Your task to perform on an android device: delete location history Image 0: 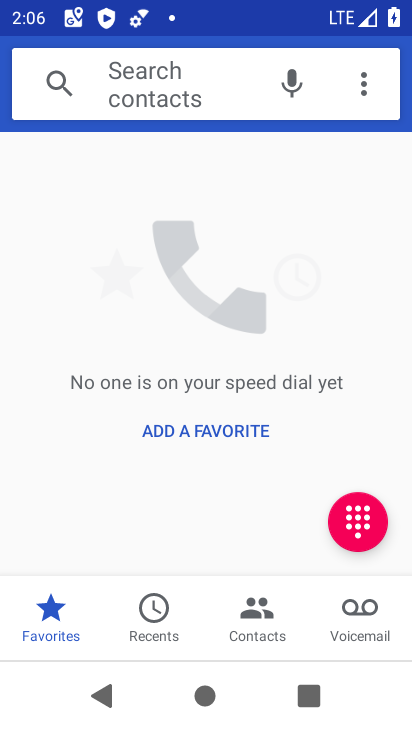
Step 0: press home button
Your task to perform on an android device: delete location history Image 1: 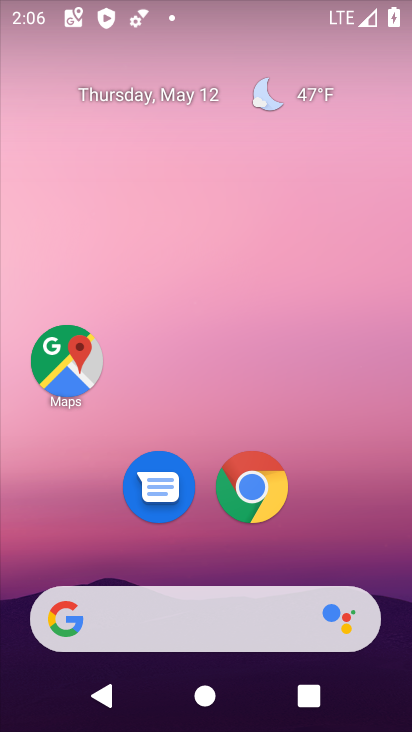
Step 1: click (60, 359)
Your task to perform on an android device: delete location history Image 2: 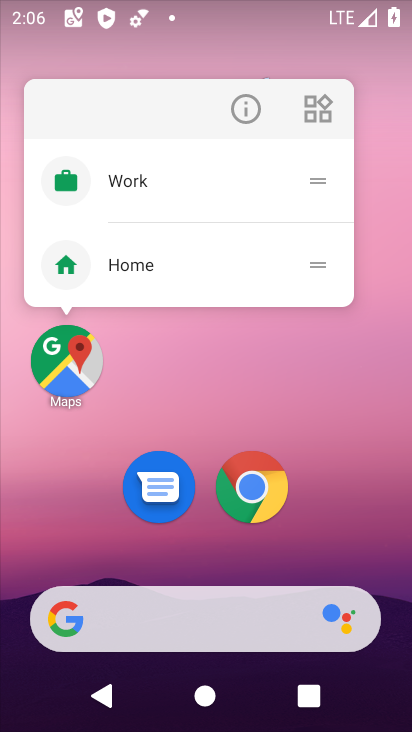
Step 2: drag from (345, 508) to (247, 64)
Your task to perform on an android device: delete location history Image 3: 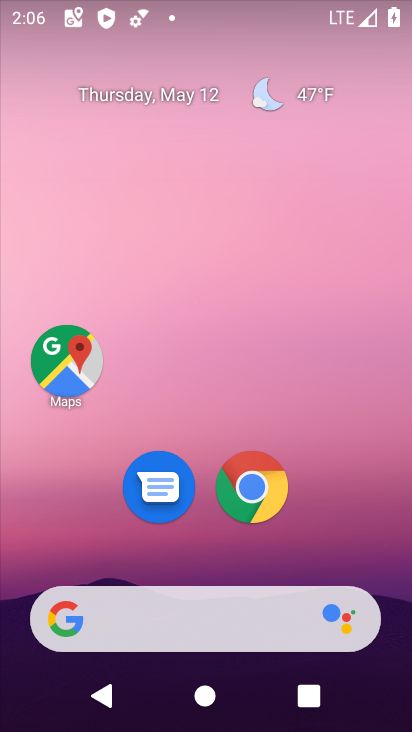
Step 3: click (84, 370)
Your task to perform on an android device: delete location history Image 4: 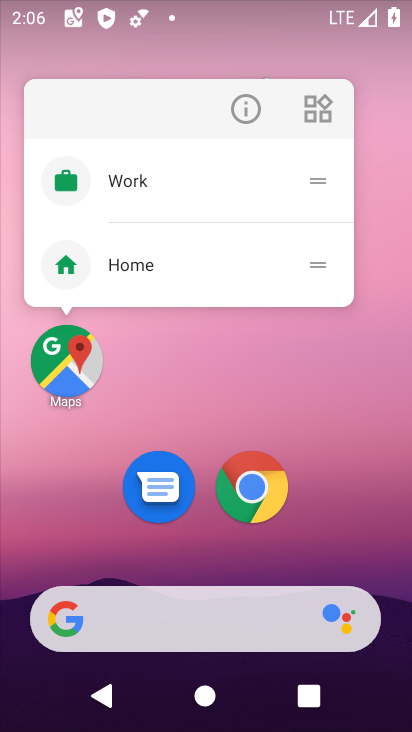
Step 4: click (67, 370)
Your task to perform on an android device: delete location history Image 5: 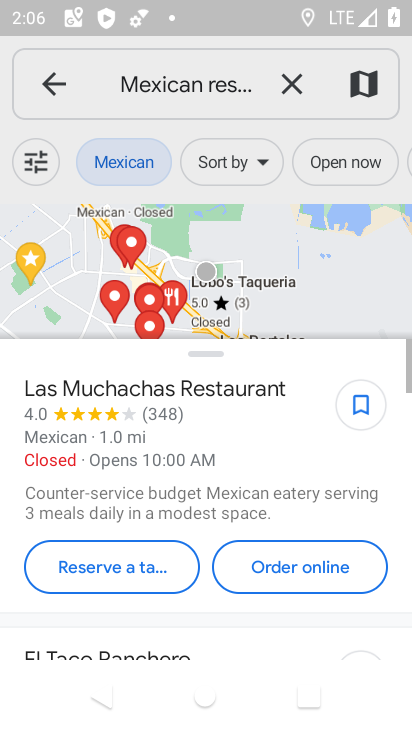
Step 5: click (59, 96)
Your task to perform on an android device: delete location history Image 6: 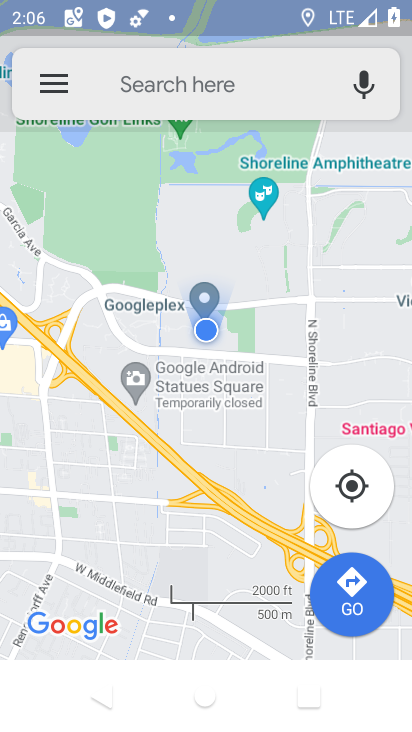
Step 6: click (45, 92)
Your task to perform on an android device: delete location history Image 7: 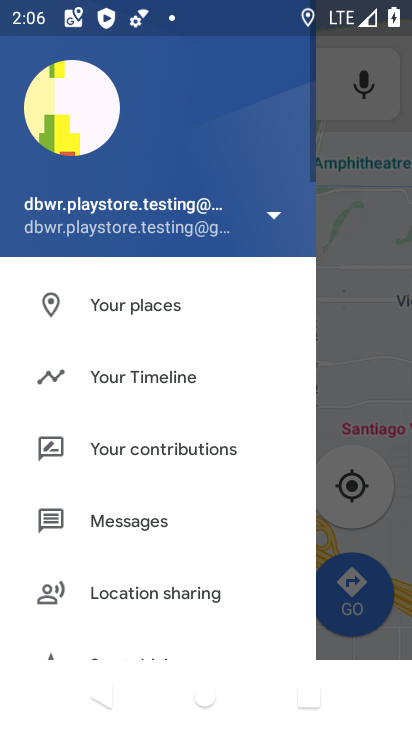
Step 7: drag from (179, 514) to (171, 0)
Your task to perform on an android device: delete location history Image 8: 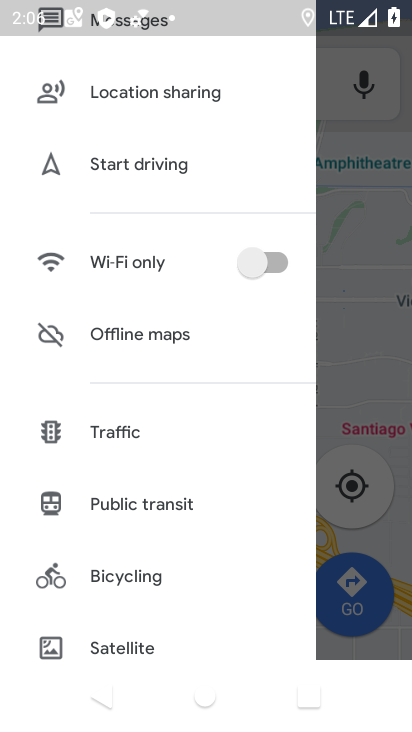
Step 8: drag from (199, 584) to (216, 155)
Your task to perform on an android device: delete location history Image 9: 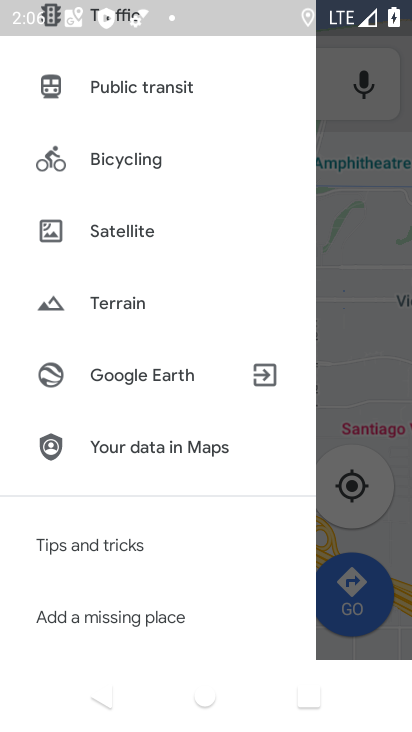
Step 9: drag from (171, 610) to (176, 168)
Your task to perform on an android device: delete location history Image 10: 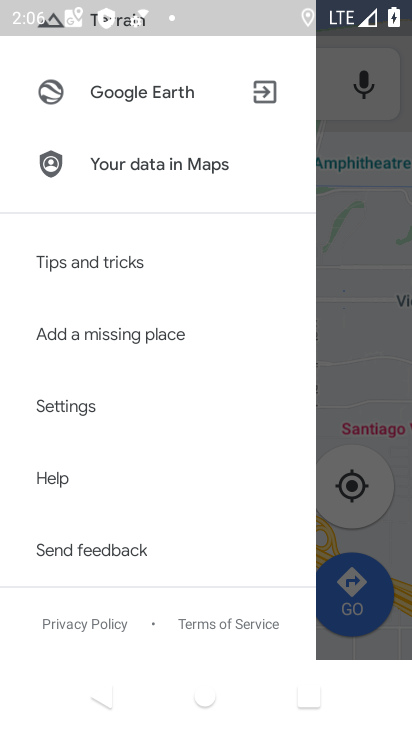
Step 10: click (60, 408)
Your task to perform on an android device: delete location history Image 11: 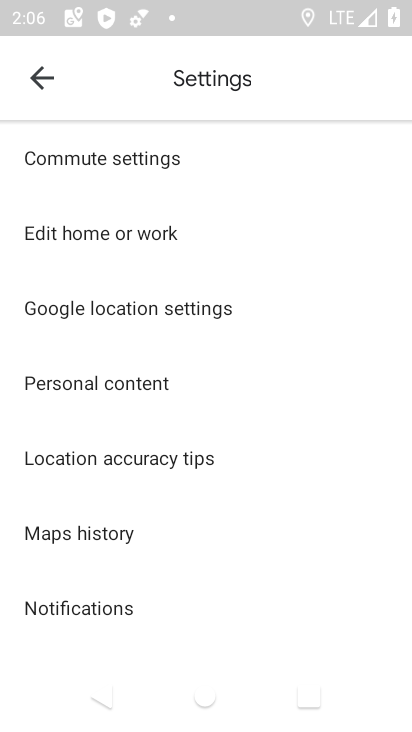
Step 11: click (91, 534)
Your task to perform on an android device: delete location history Image 12: 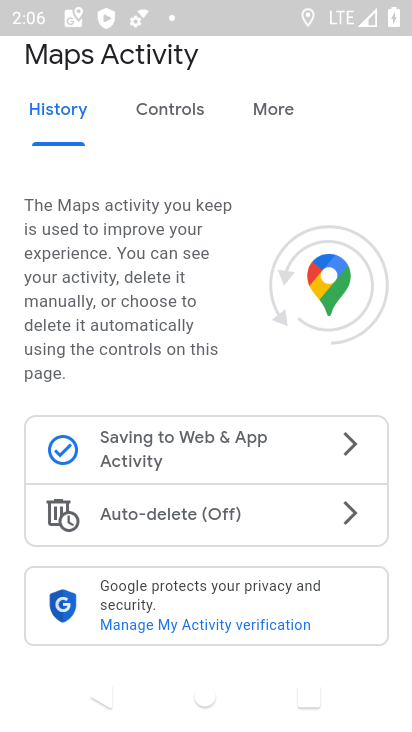
Step 12: drag from (241, 594) to (136, 265)
Your task to perform on an android device: delete location history Image 13: 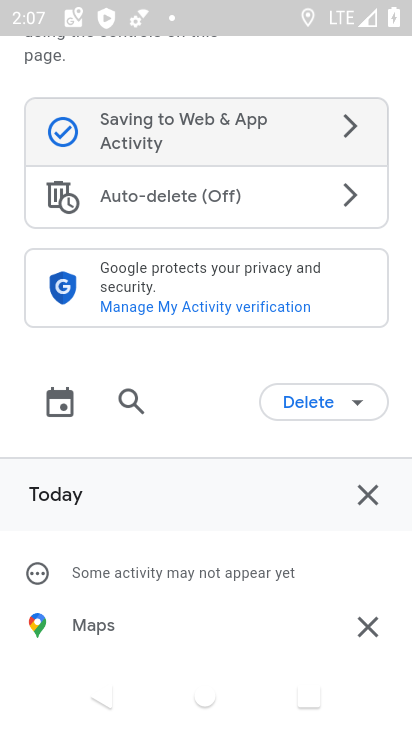
Step 13: click (344, 411)
Your task to perform on an android device: delete location history Image 14: 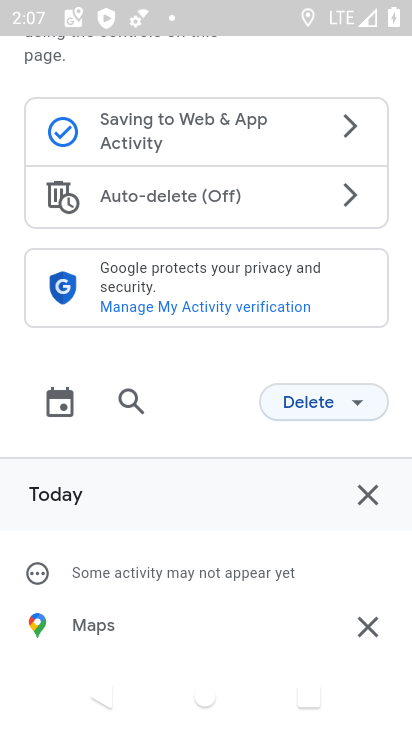
Step 14: click (335, 406)
Your task to perform on an android device: delete location history Image 15: 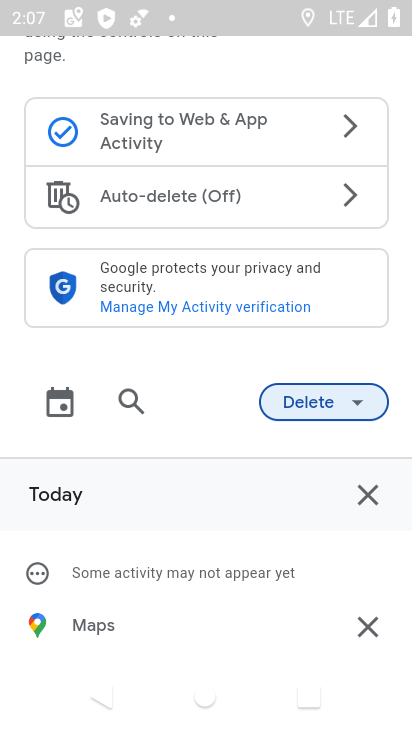
Step 15: click (304, 390)
Your task to perform on an android device: delete location history Image 16: 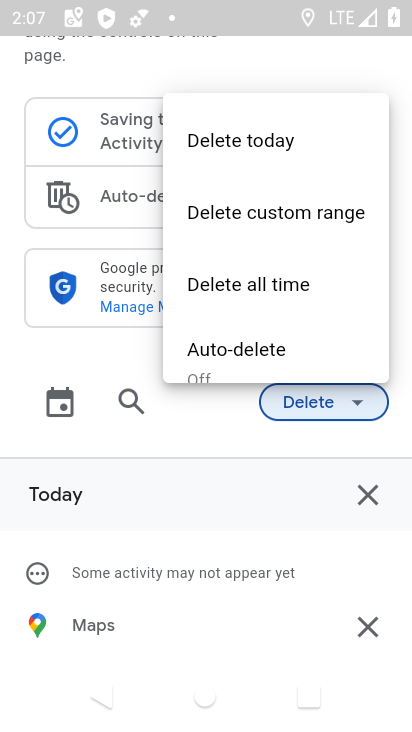
Step 16: click (296, 297)
Your task to perform on an android device: delete location history Image 17: 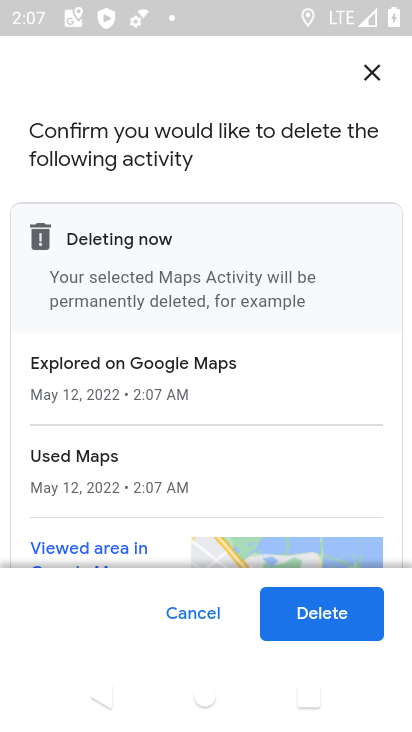
Step 17: click (329, 614)
Your task to perform on an android device: delete location history Image 18: 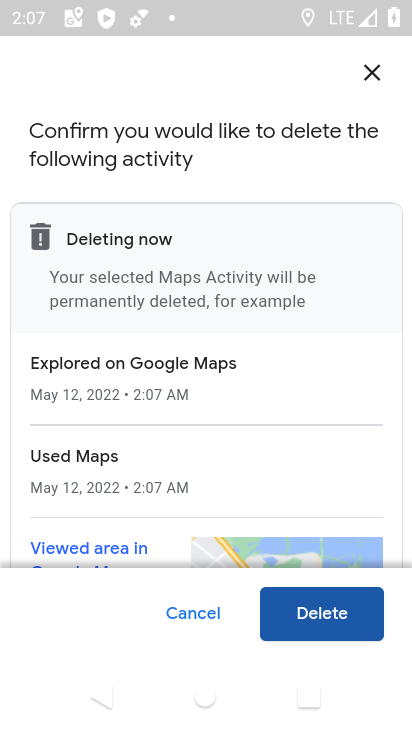
Step 18: click (325, 594)
Your task to perform on an android device: delete location history Image 19: 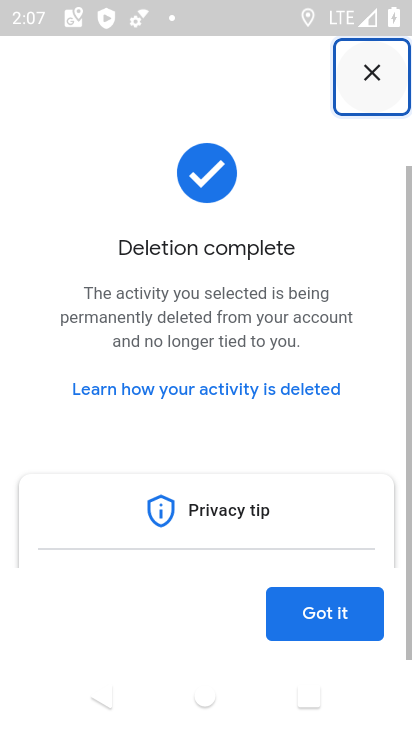
Step 19: click (310, 592)
Your task to perform on an android device: delete location history Image 20: 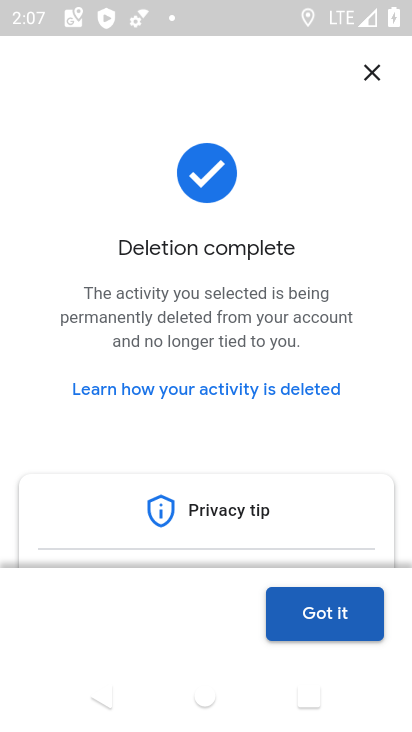
Step 20: task complete